Your task to perform on an android device: Search for "acer nitro" on walmart.com, select the first entry, and add it to the cart. Image 0: 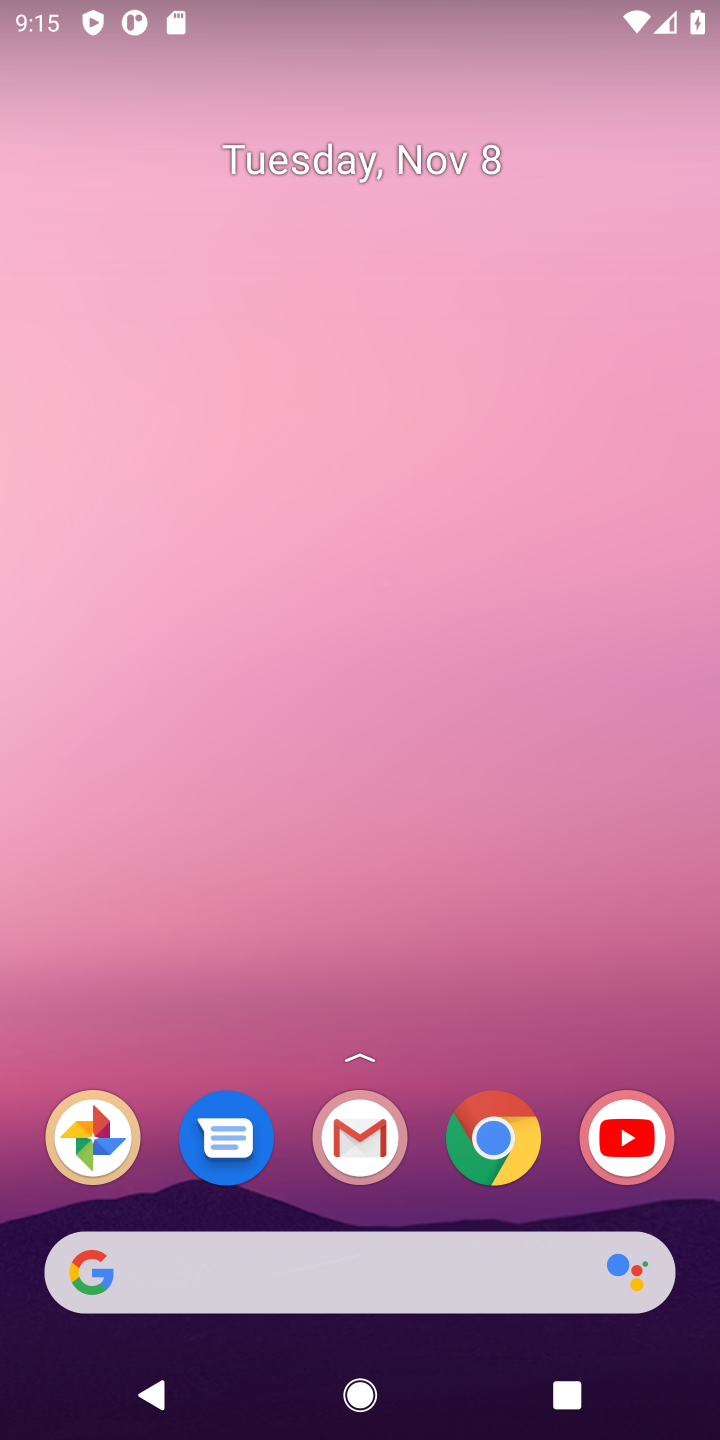
Step 0: click (496, 1140)
Your task to perform on an android device: Search for "acer nitro" on walmart.com, select the first entry, and add it to the cart. Image 1: 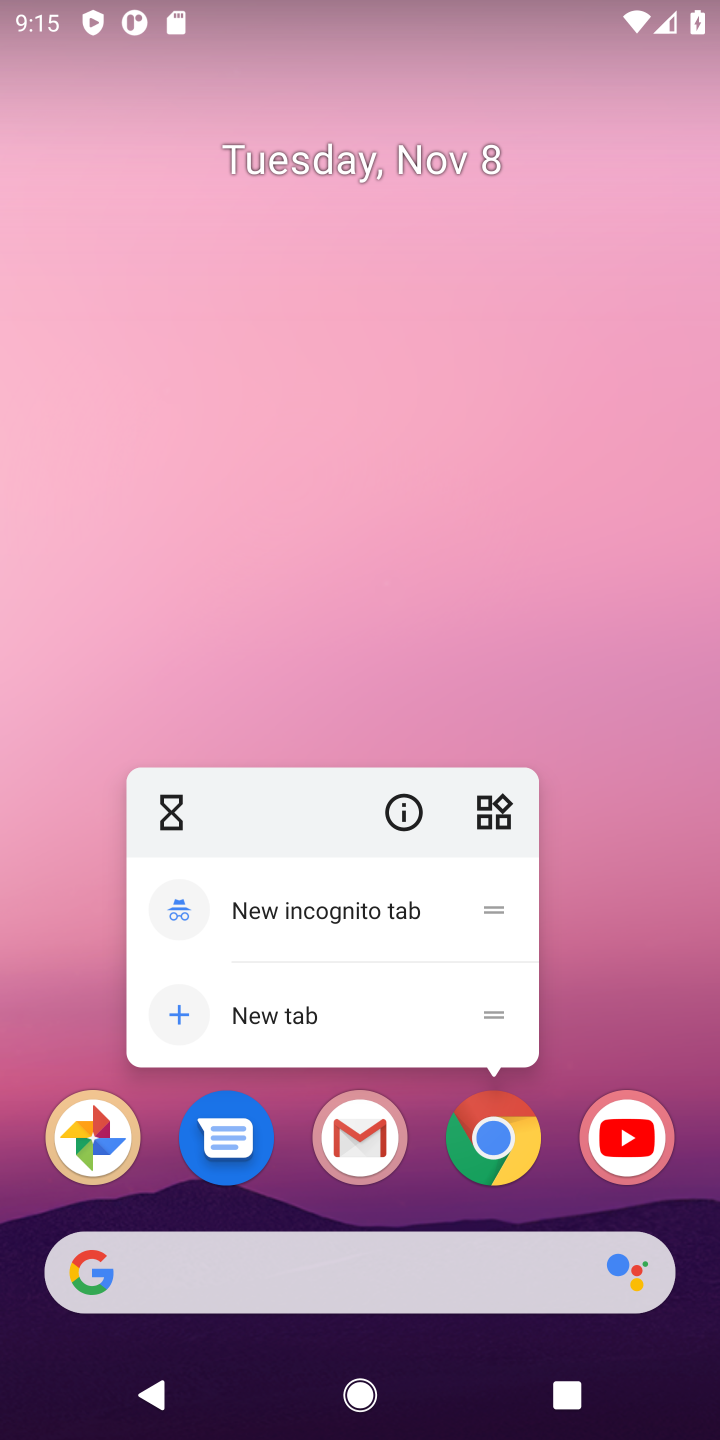
Step 1: click (496, 1147)
Your task to perform on an android device: Search for "acer nitro" on walmart.com, select the first entry, and add it to the cart. Image 2: 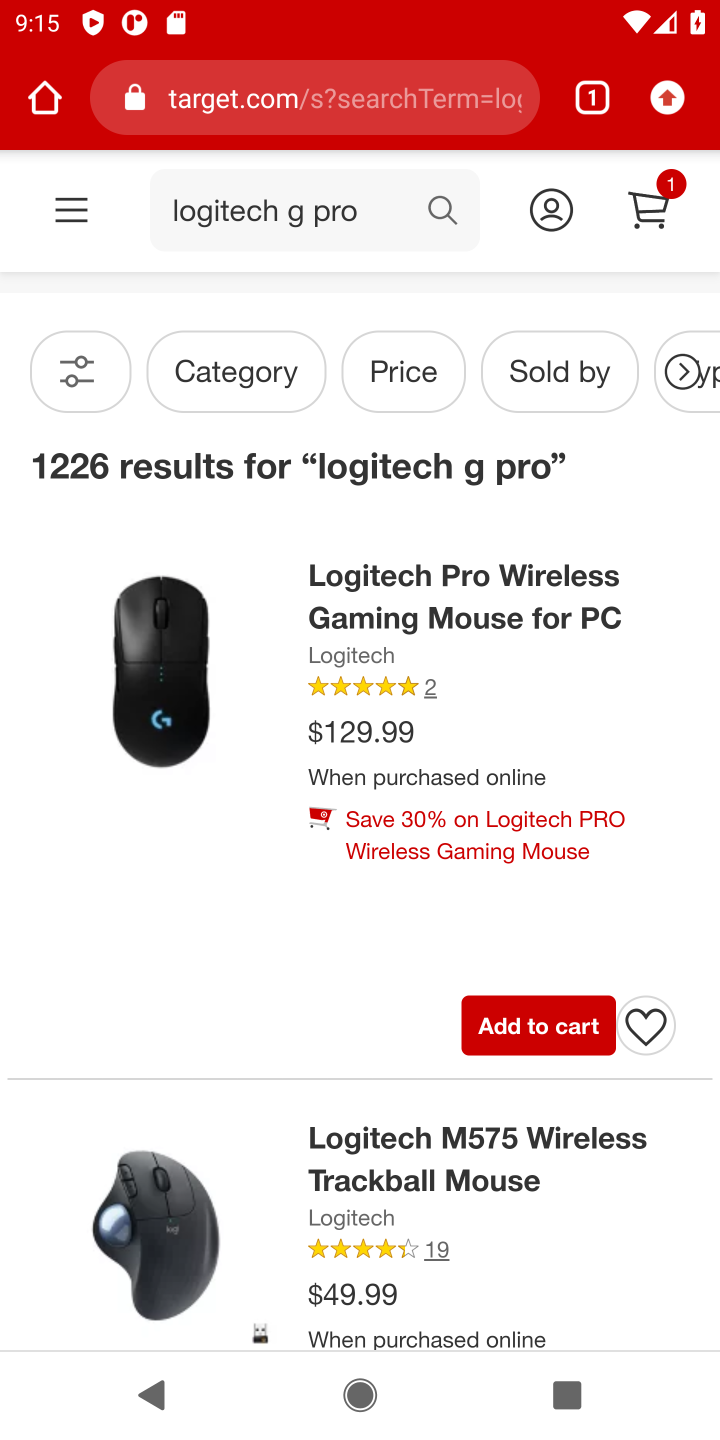
Step 2: click (369, 104)
Your task to perform on an android device: Search for "acer nitro" on walmart.com, select the first entry, and add it to the cart. Image 3: 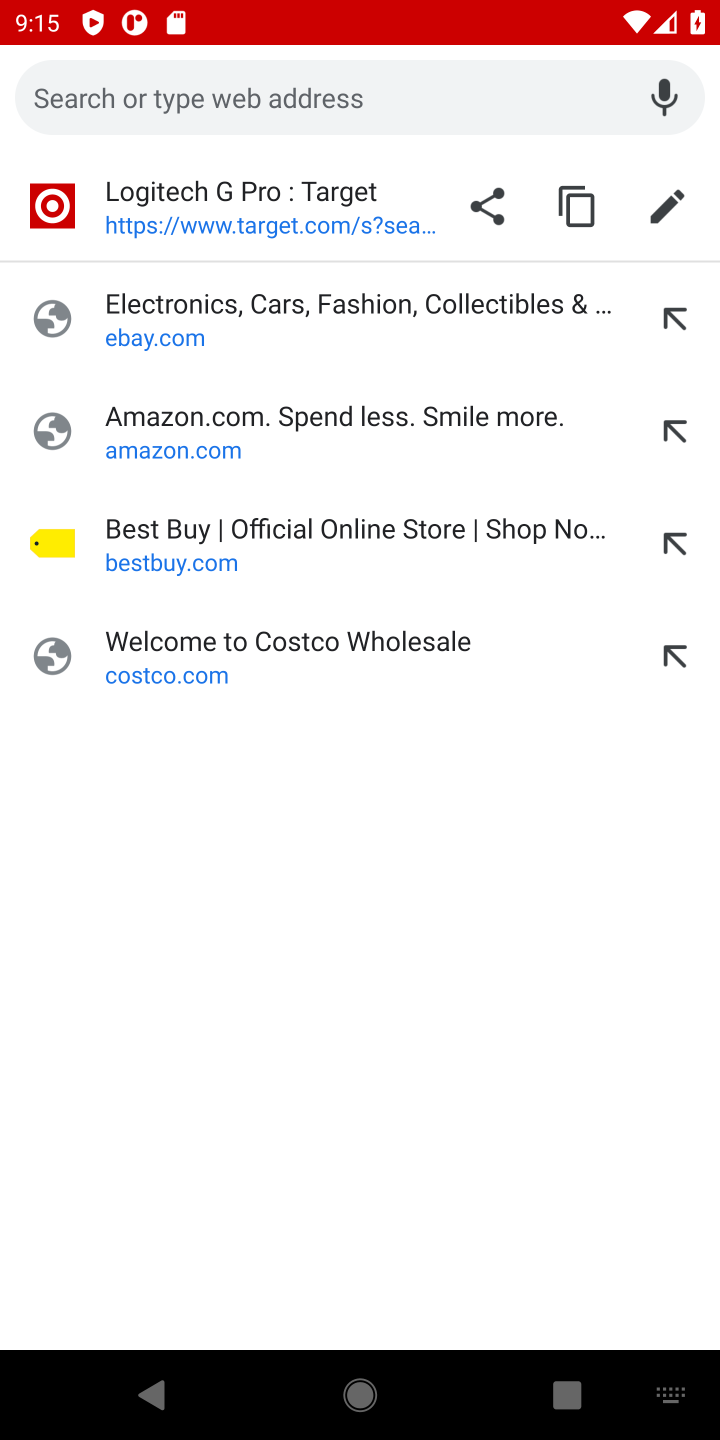
Step 3: type "walmart.com"
Your task to perform on an android device: Search for "acer nitro" on walmart.com, select the first entry, and add it to the cart. Image 4: 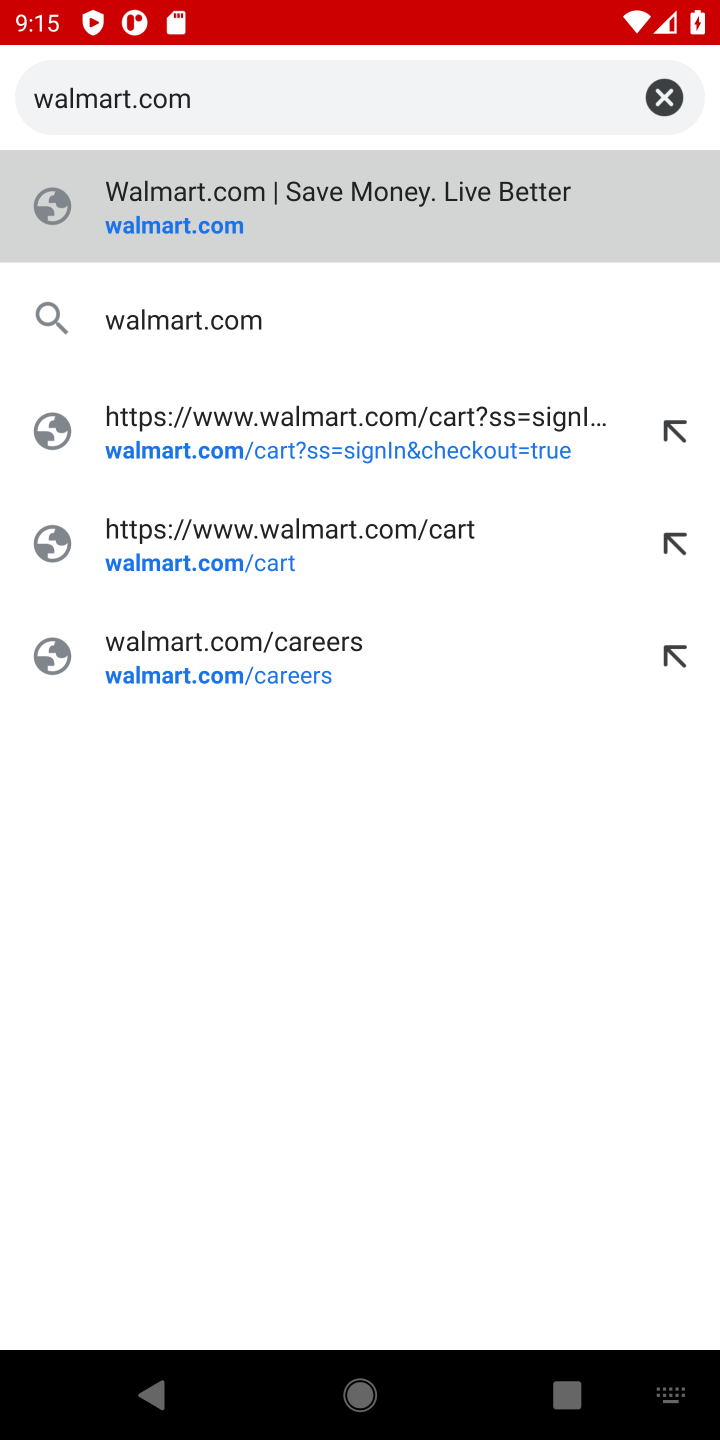
Step 4: press enter
Your task to perform on an android device: Search for "acer nitro" on walmart.com, select the first entry, and add it to the cart. Image 5: 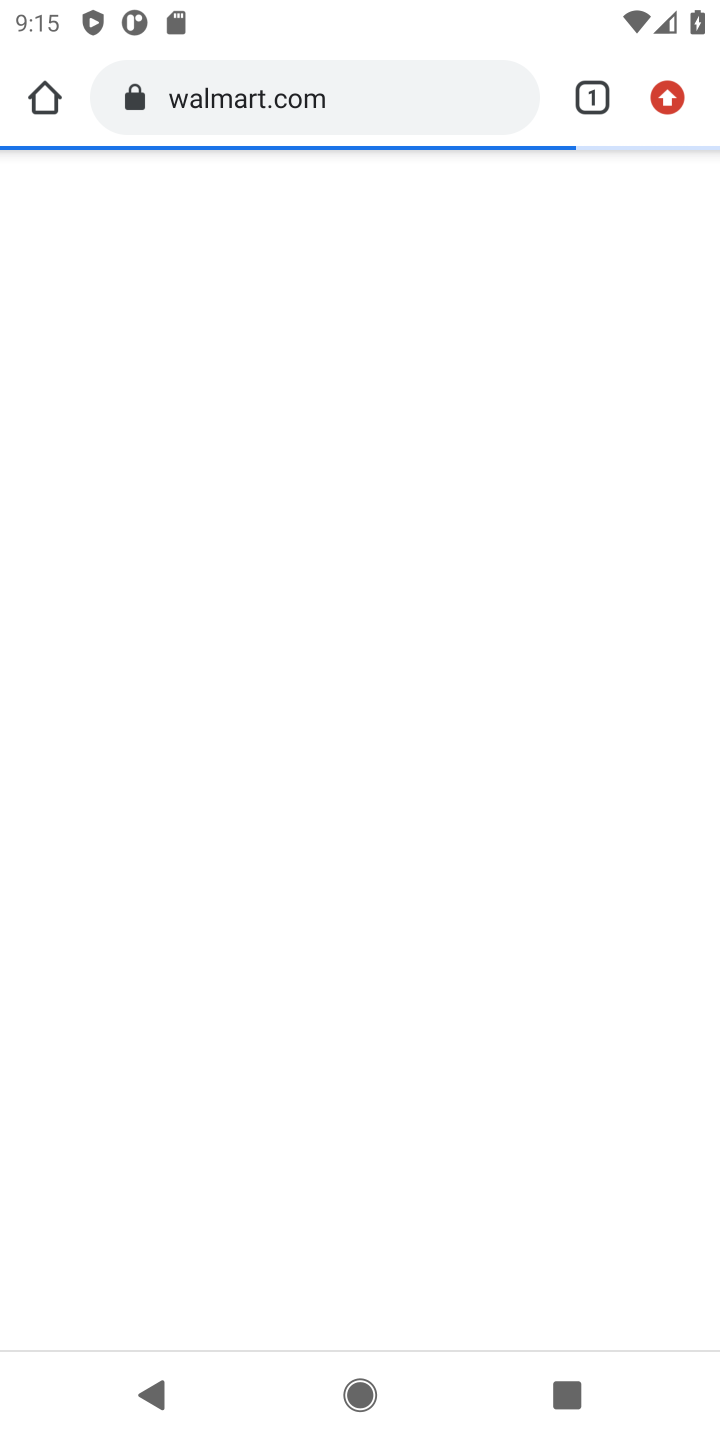
Step 5: click (420, 200)
Your task to perform on an android device: Search for "acer nitro" on walmart.com, select the first entry, and add it to the cart. Image 6: 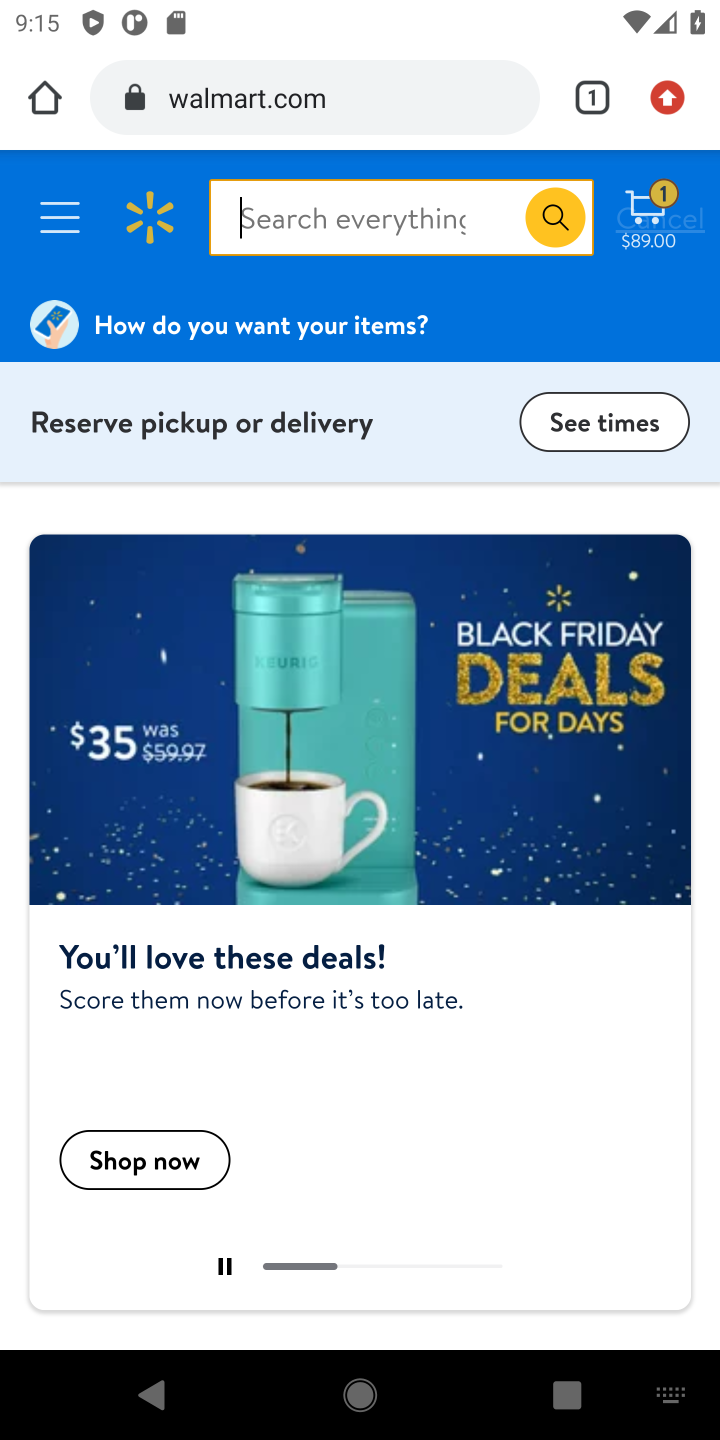
Step 6: click (411, 209)
Your task to perform on an android device: Search for "acer nitro" on walmart.com, select the first entry, and add it to the cart. Image 7: 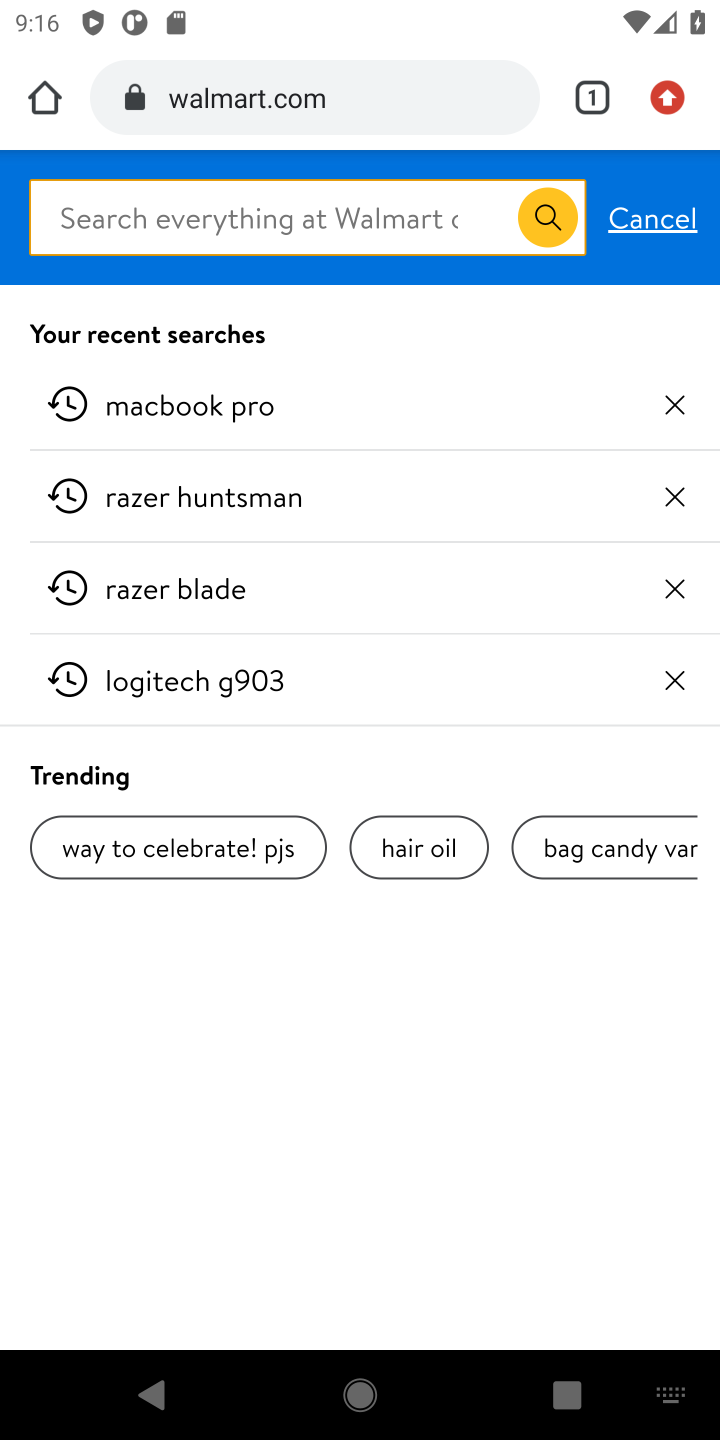
Step 7: type "acer nitro"
Your task to perform on an android device: Search for "acer nitro" on walmart.com, select the first entry, and add it to the cart. Image 8: 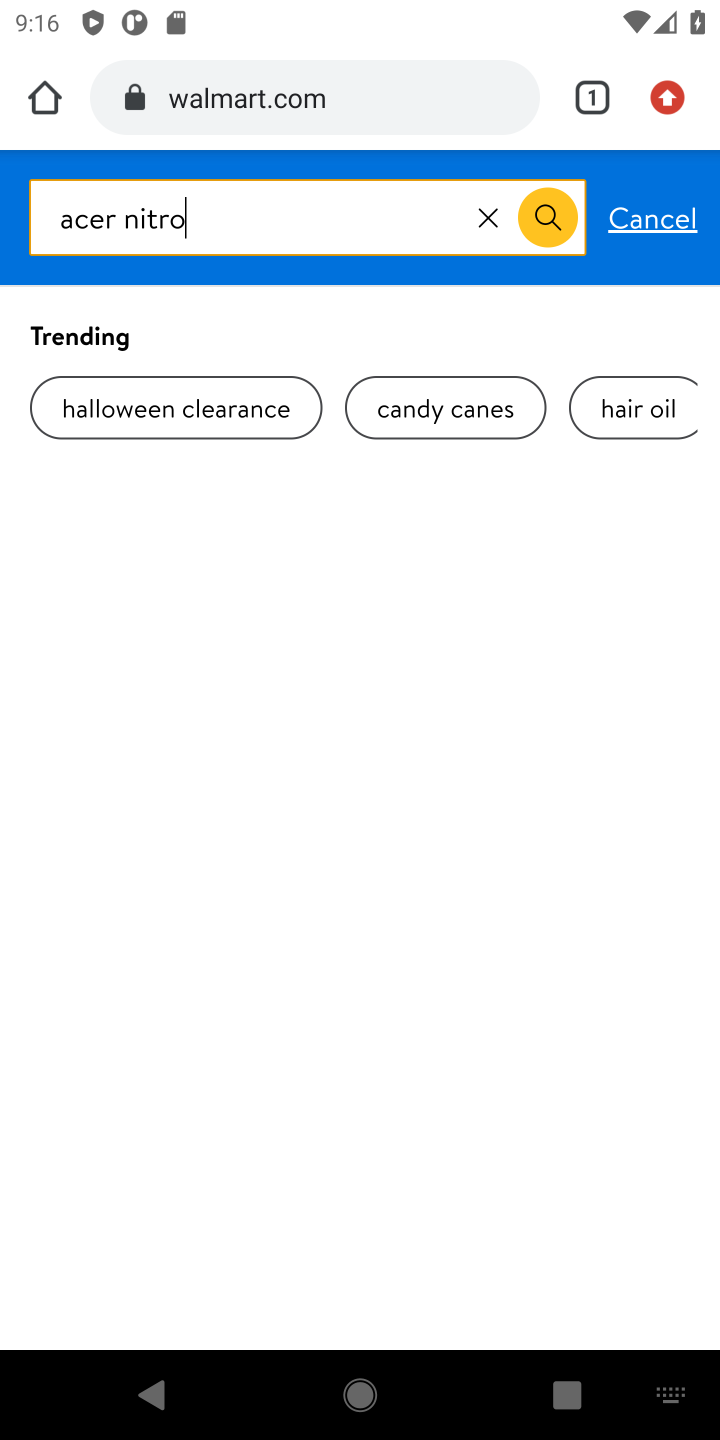
Step 8: press enter
Your task to perform on an android device: Search for "acer nitro" on walmart.com, select the first entry, and add it to the cart. Image 9: 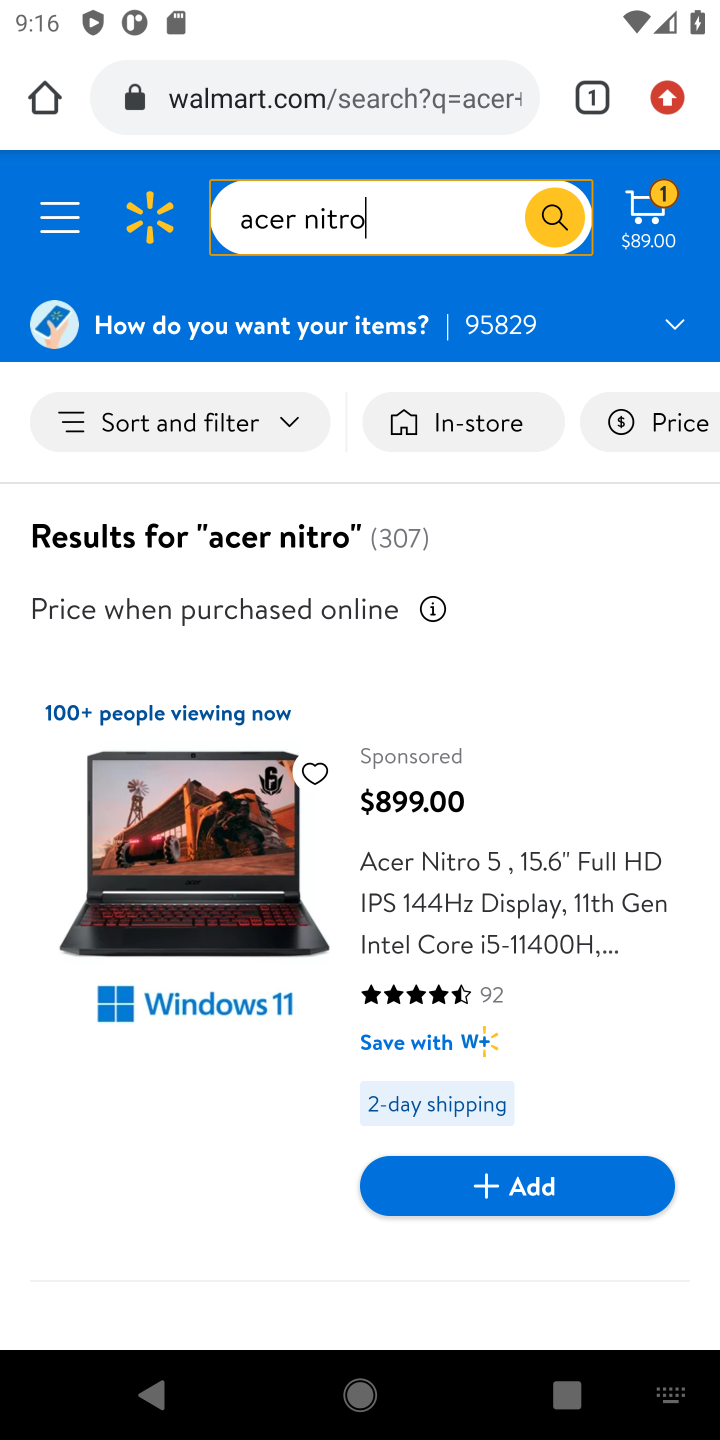
Step 9: click (526, 1197)
Your task to perform on an android device: Search for "acer nitro" on walmart.com, select the first entry, and add it to the cart. Image 10: 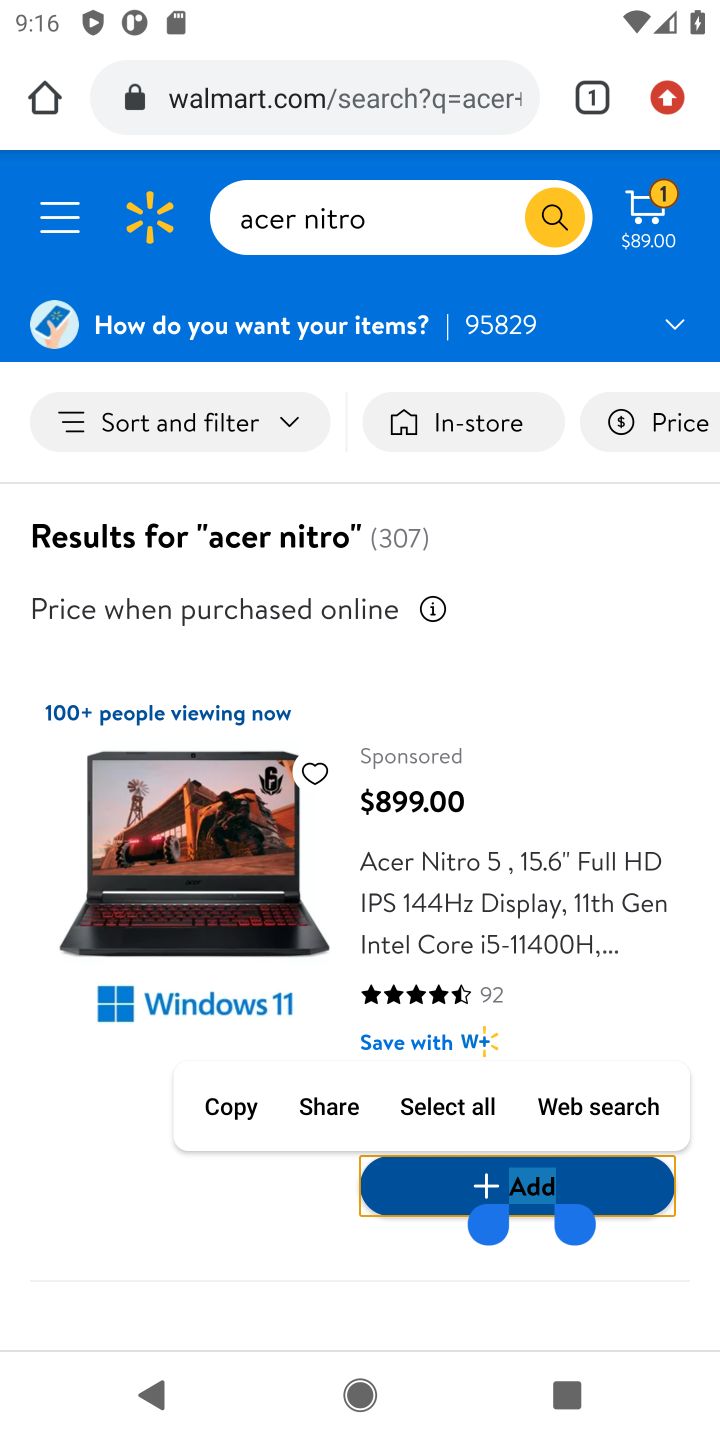
Step 10: click (548, 1174)
Your task to perform on an android device: Search for "acer nitro" on walmart.com, select the first entry, and add it to the cart. Image 11: 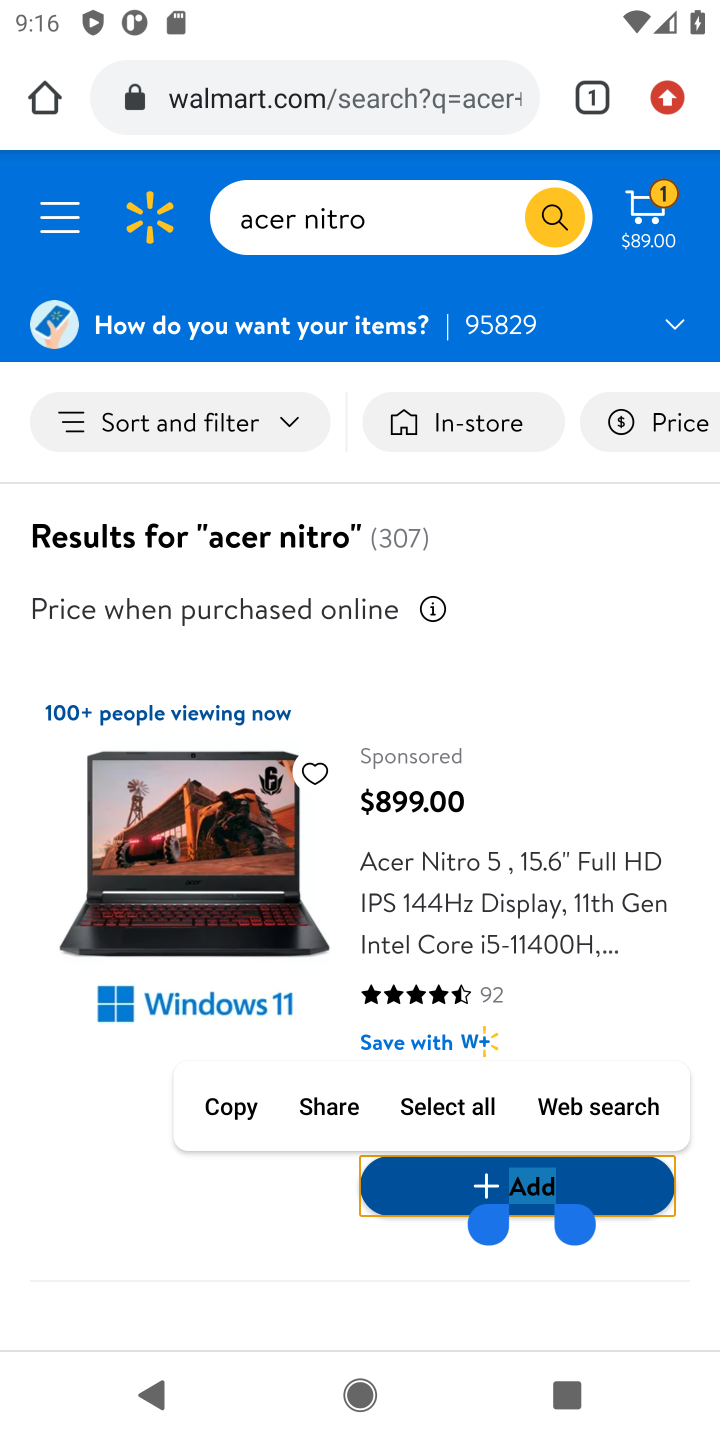
Step 11: click (601, 1193)
Your task to perform on an android device: Search for "acer nitro" on walmart.com, select the first entry, and add it to the cart. Image 12: 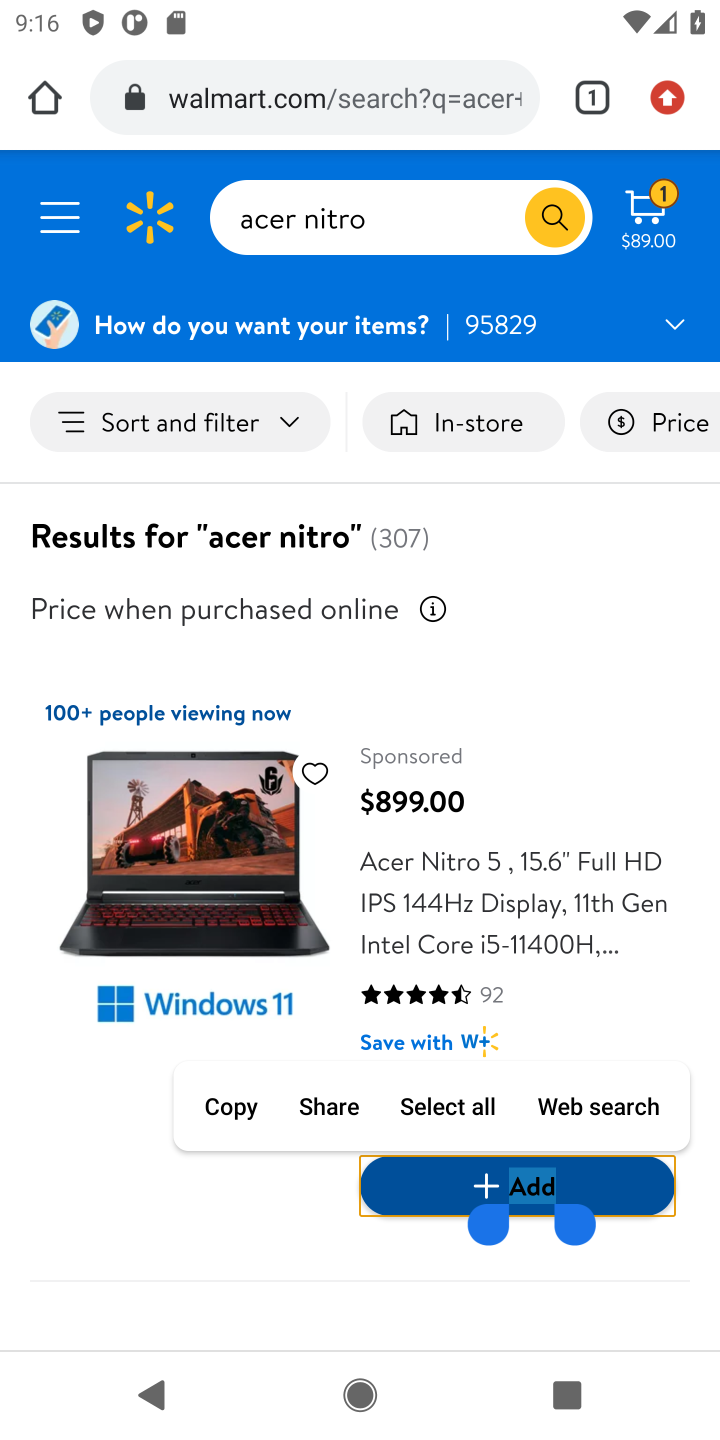
Step 12: click (586, 1187)
Your task to perform on an android device: Search for "acer nitro" on walmart.com, select the first entry, and add it to the cart. Image 13: 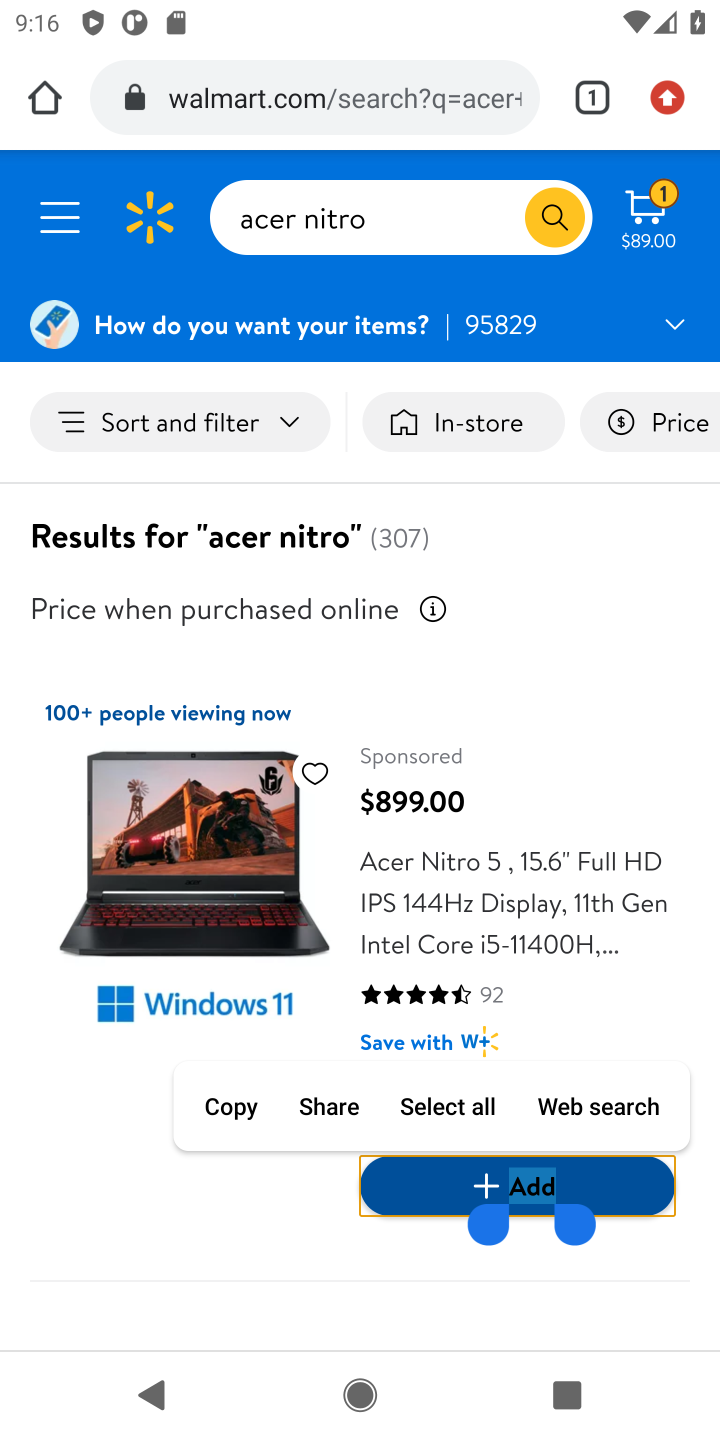
Step 13: click (428, 1242)
Your task to perform on an android device: Search for "acer nitro" on walmart.com, select the first entry, and add it to the cart. Image 14: 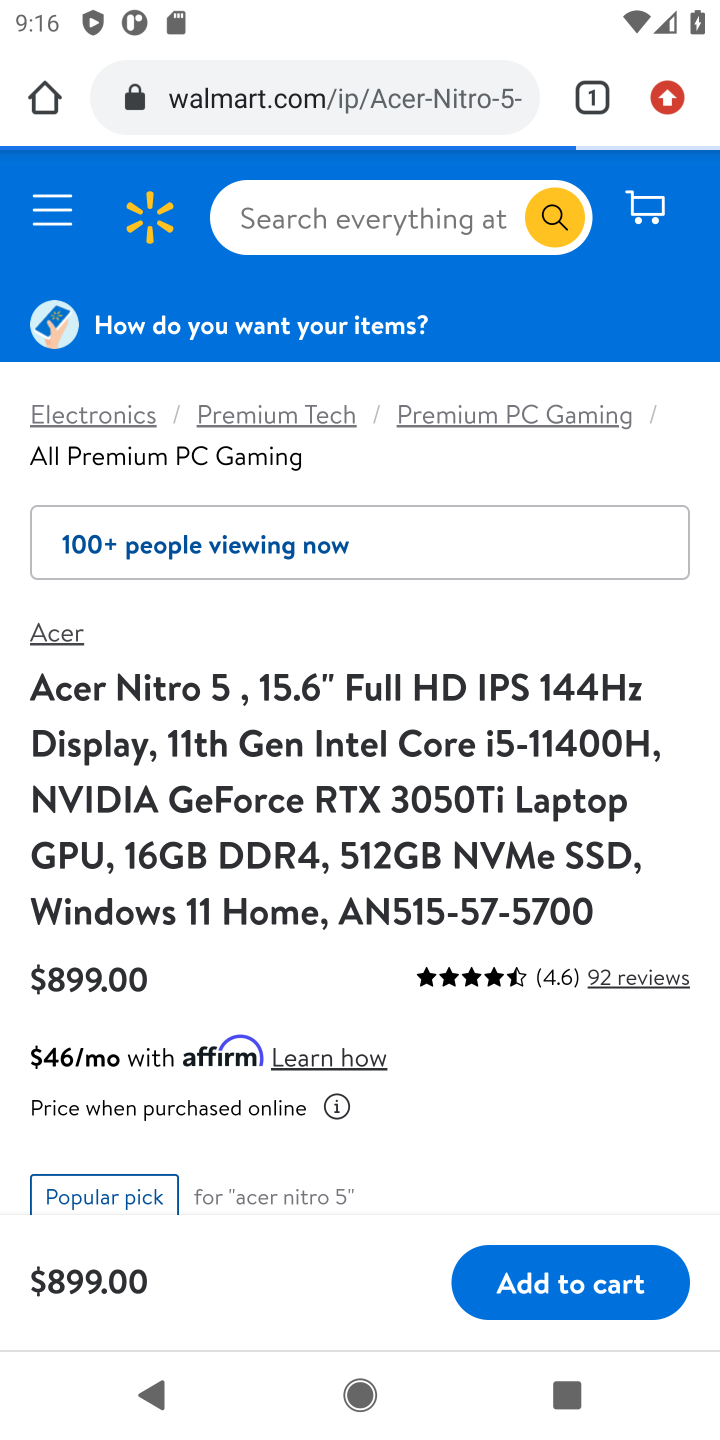
Step 14: click (534, 1189)
Your task to perform on an android device: Search for "acer nitro" on walmart.com, select the first entry, and add it to the cart. Image 15: 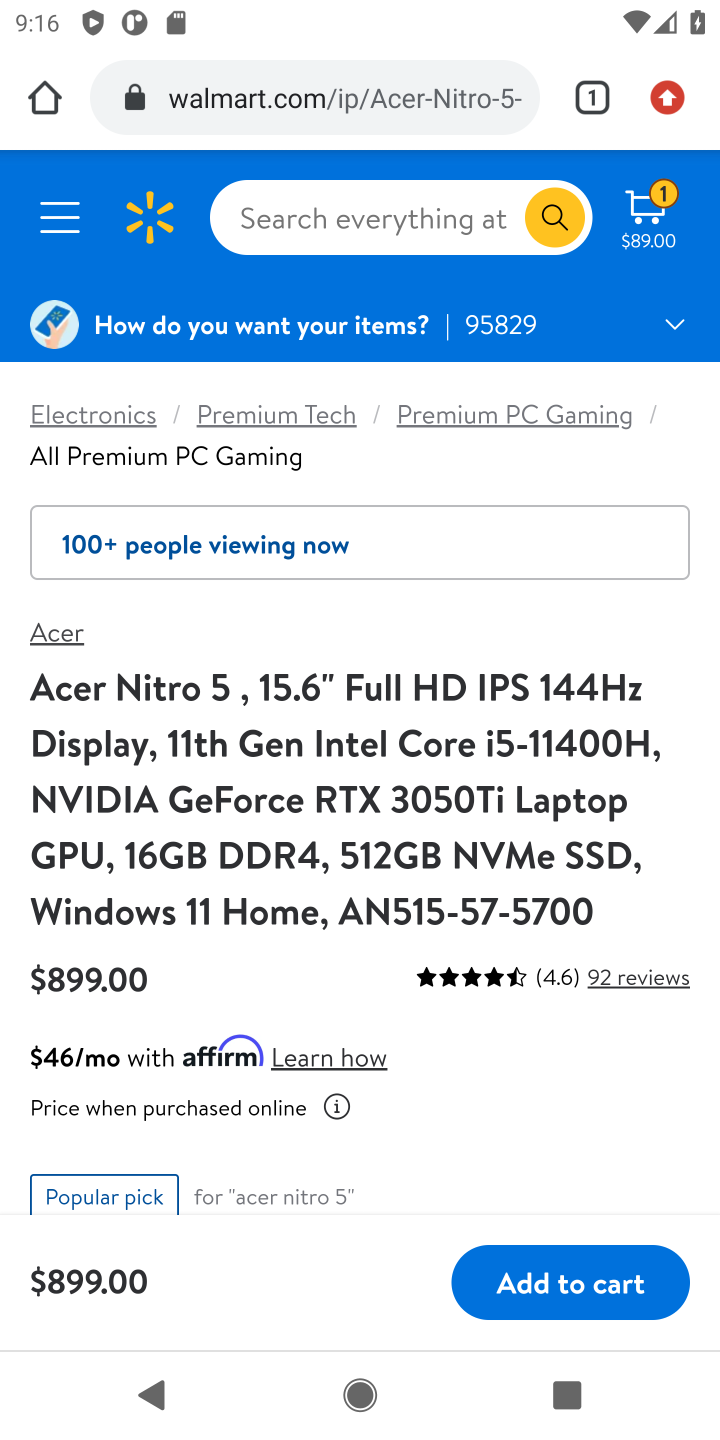
Step 15: click (576, 1274)
Your task to perform on an android device: Search for "acer nitro" on walmart.com, select the first entry, and add it to the cart. Image 16: 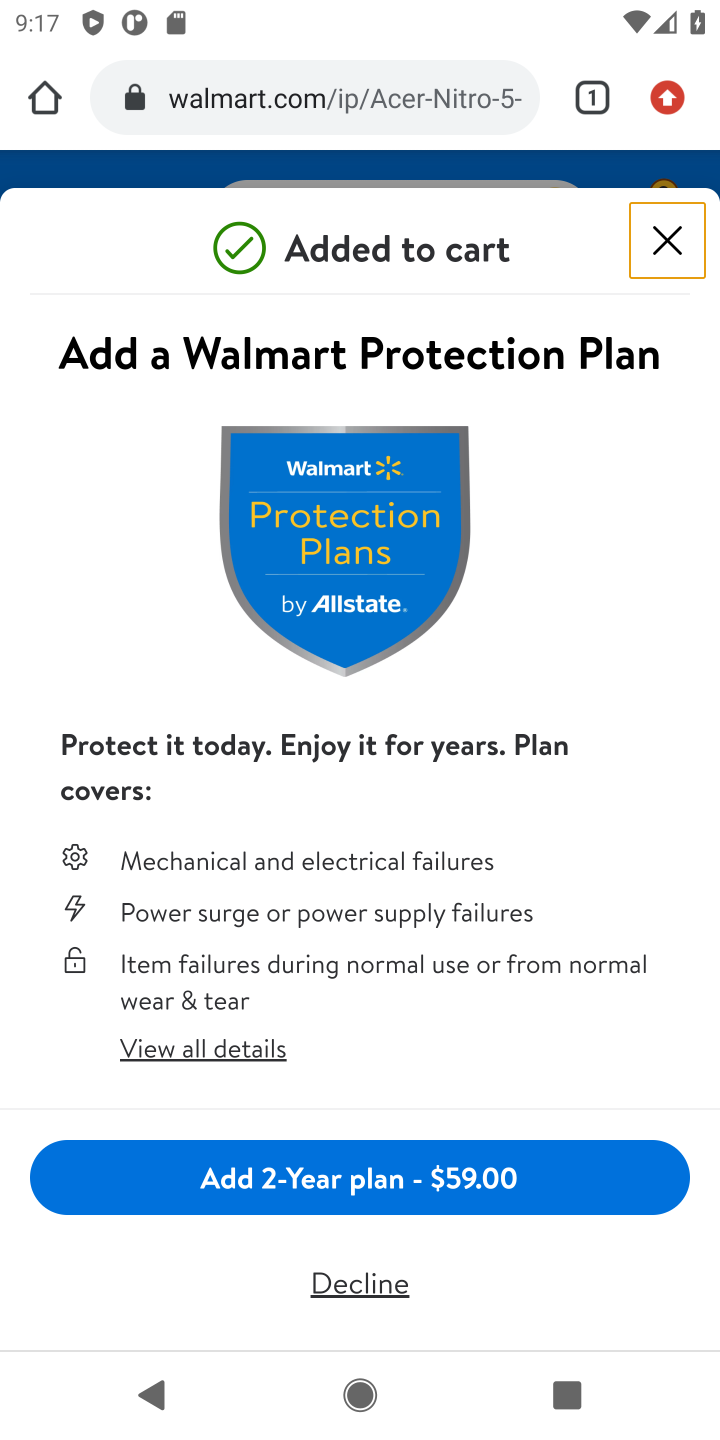
Step 16: click (667, 250)
Your task to perform on an android device: Search for "acer nitro" on walmart.com, select the first entry, and add it to the cart. Image 17: 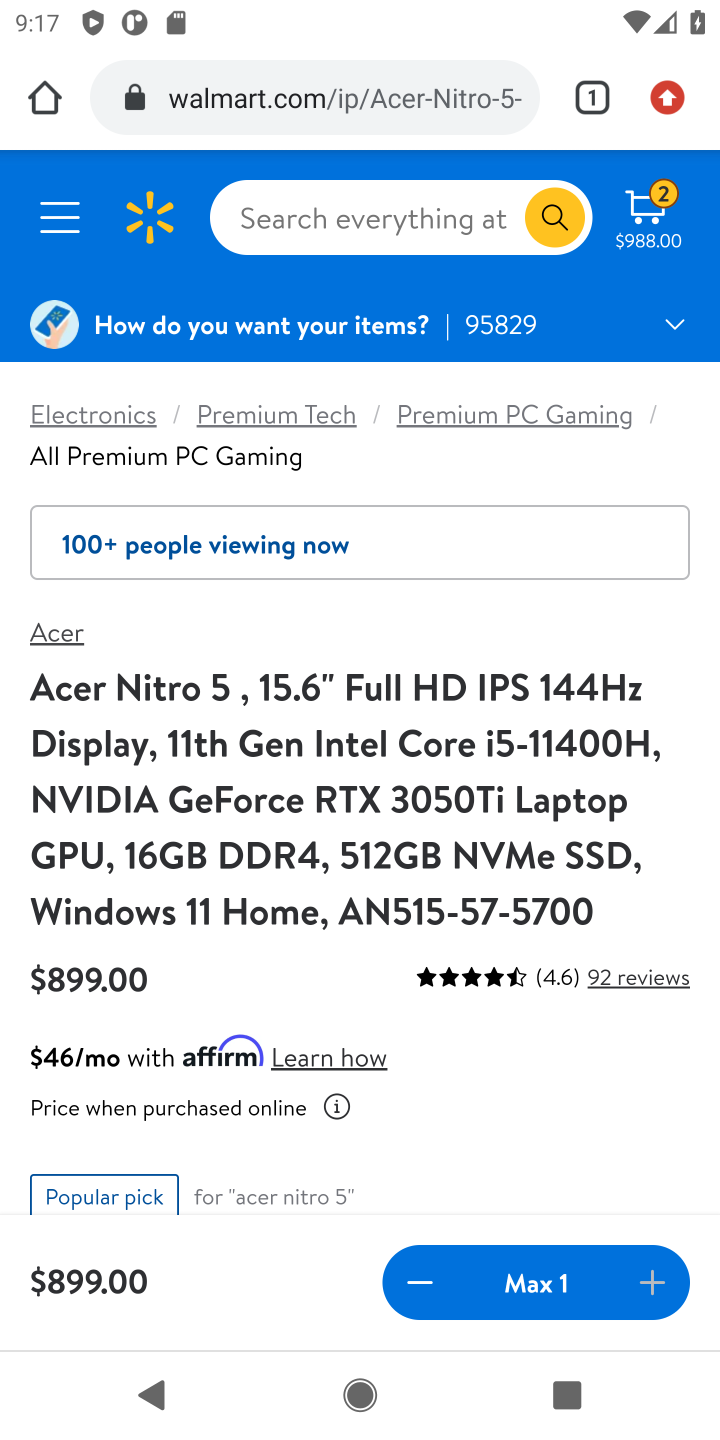
Step 17: click (654, 206)
Your task to perform on an android device: Search for "acer nitro" on walmart.com, select the first entry, and add it to the cart. Image 18: 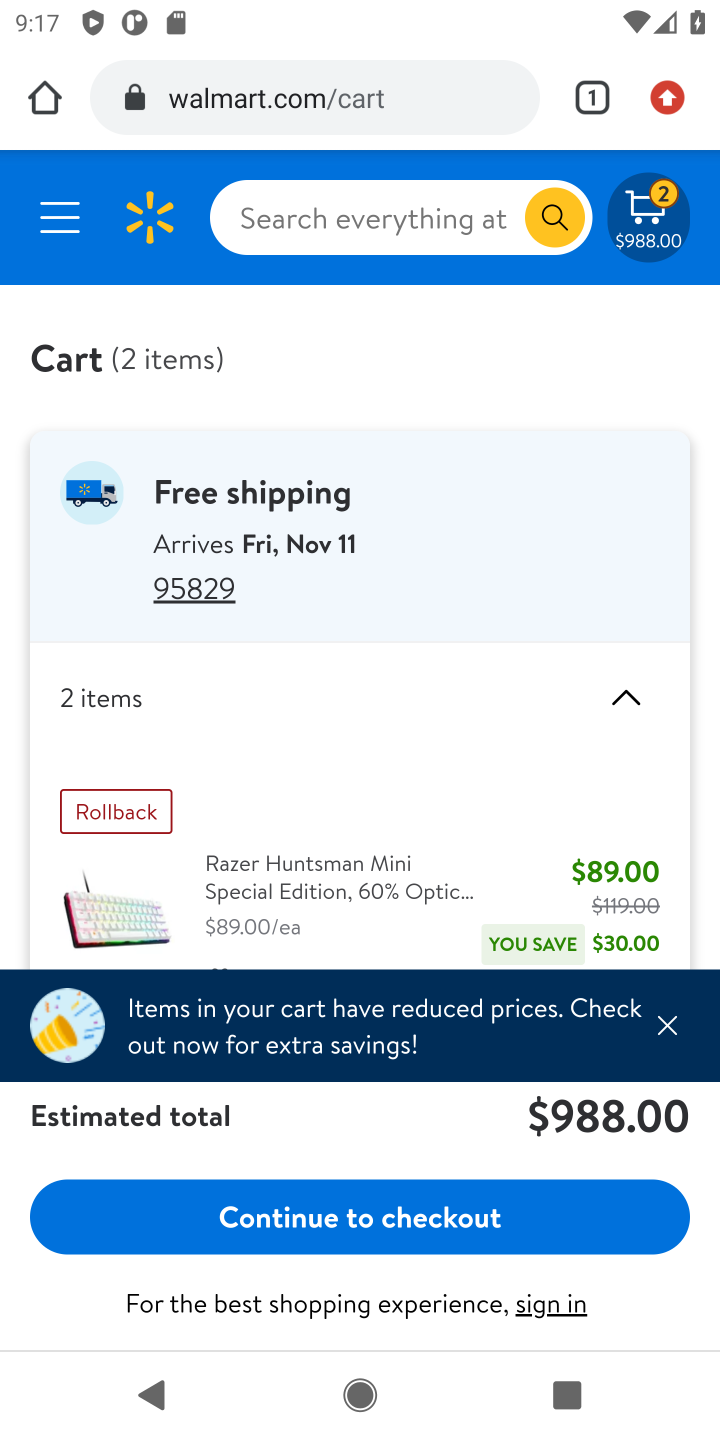
Step 18: drag from (465, 792) to (608, 180)
Your task to perform on an android device: Search for "acer nitro" on walmart.com, select the first entry, and add it to the cart. Image 19: 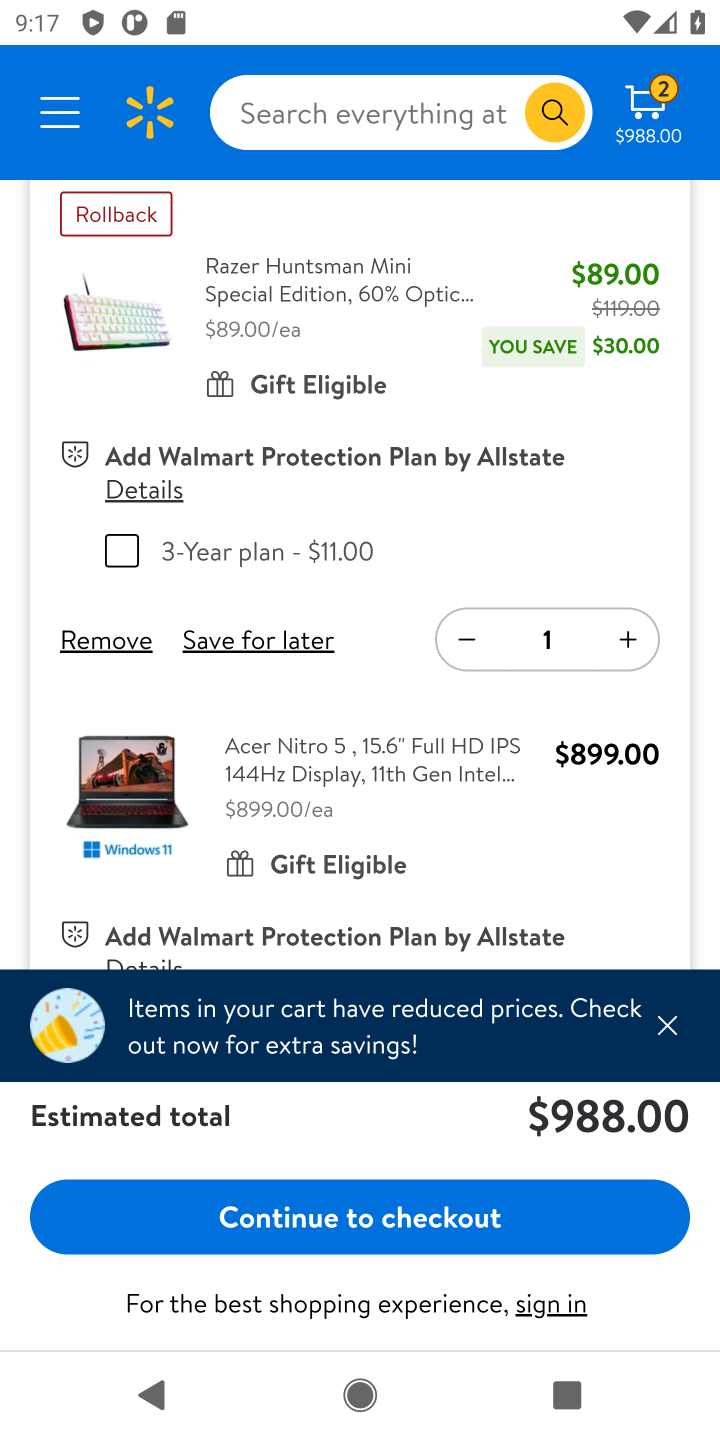
Step 19: click (127, 639)
Your task to perform on an android device: Search for "acer nitro" on walmart.com, select the first entry, and add it to the cart. Image 20: 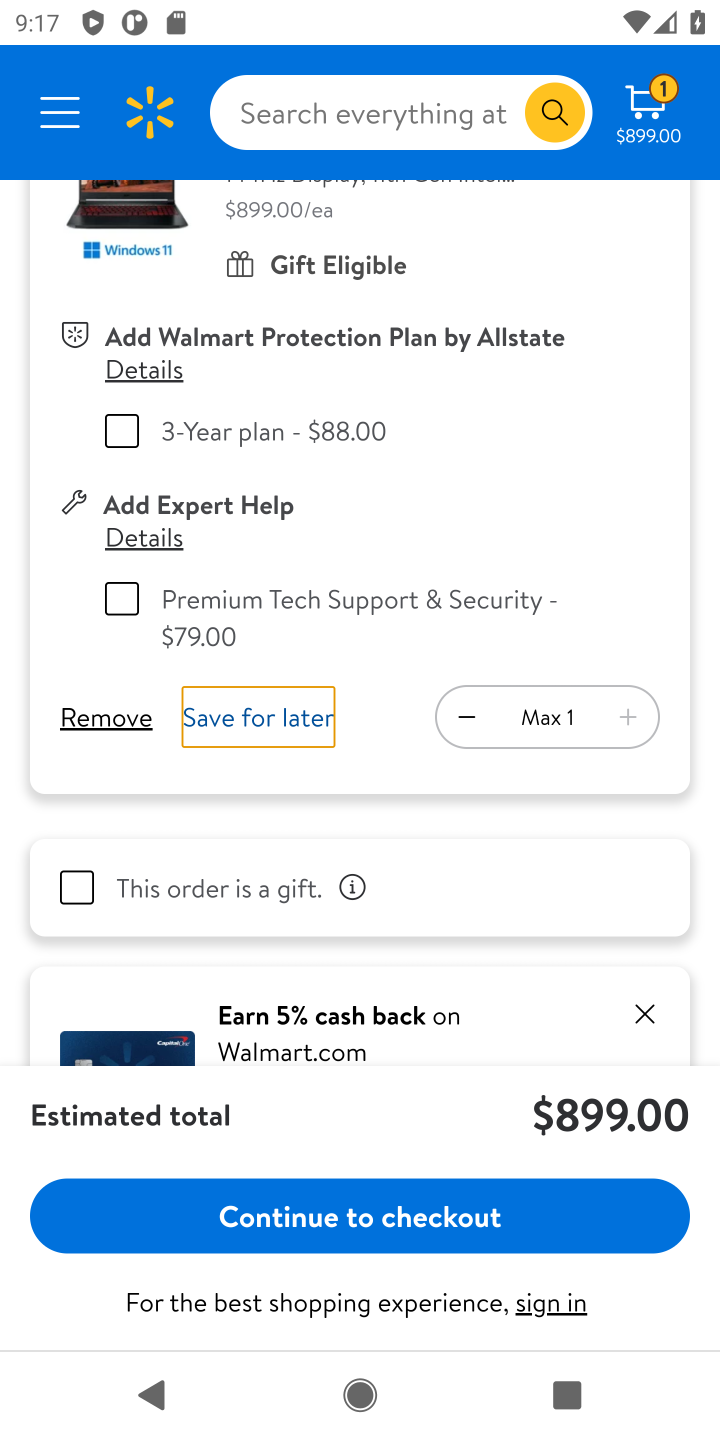
Step 20: task complete